Your task to perform on an android device: toggle notifications settings in the gmail app Image 0: 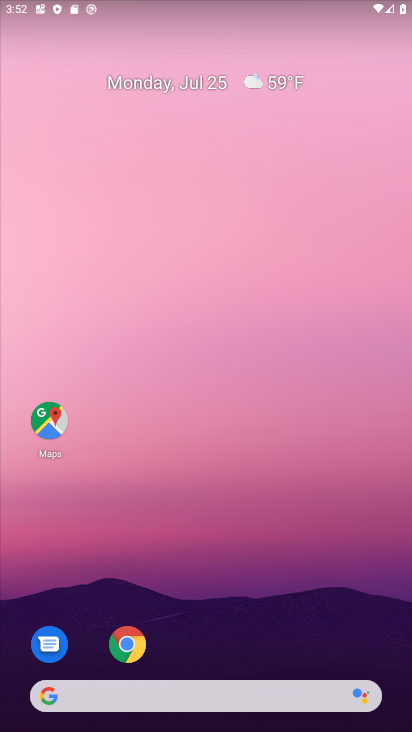
Step 0: drag from (200, 665) to (201, 184)
Your task to perform on an android device: toggle notifications settings in the gmail app Image 1: 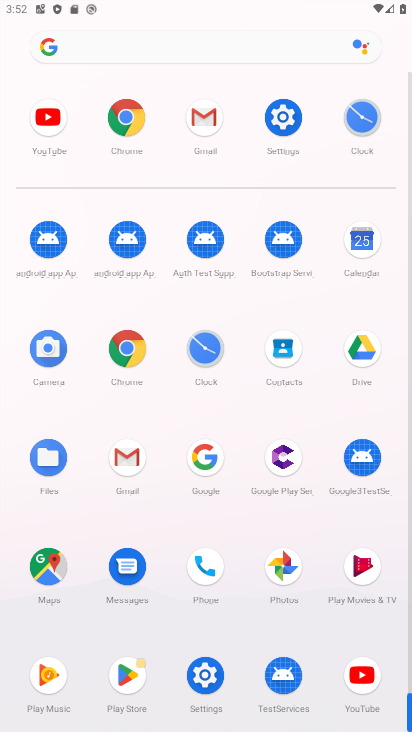
Step 1: click (209, 119)
Your task to perform on an android device: toggle notifications settings in the gmail app Image 2: 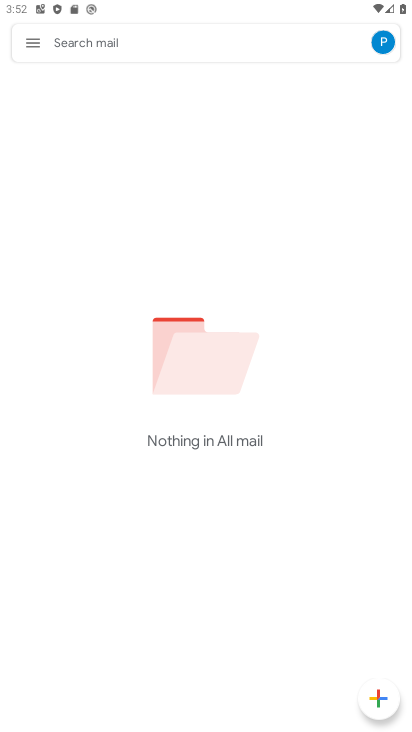
Step 2: click (31, 39)
Your task to perform on an android device: toggle notifications settings in the gmail app Image 3: 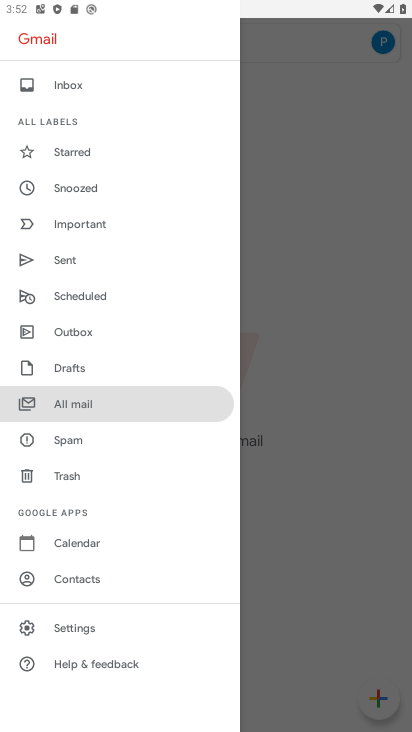
Step 3: click (90, 621)
Your task to perform on an android device: toggle notifications settings in the gmail app Image 4: 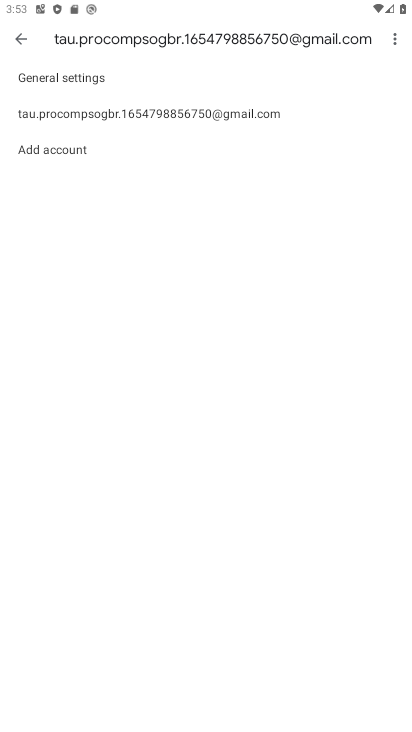
Step 4: click (138, 109)
Your task to perform on an android device: toggle notifications settings in the gmail app Image 5: 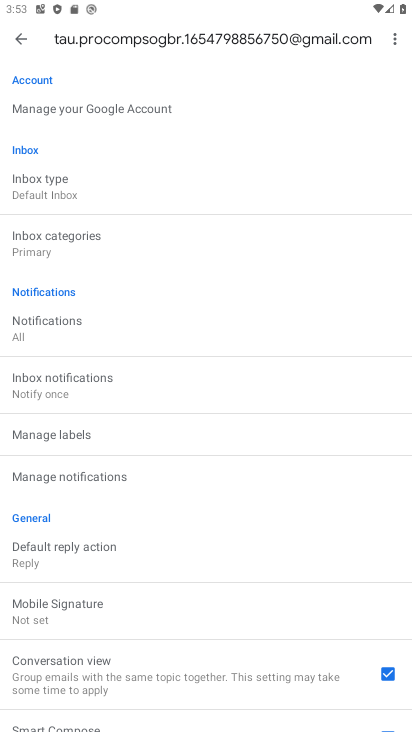
Step 5: click (58, 476)
Your task to perform on an android device: toggle notifications settings in the gmail app Image 6: 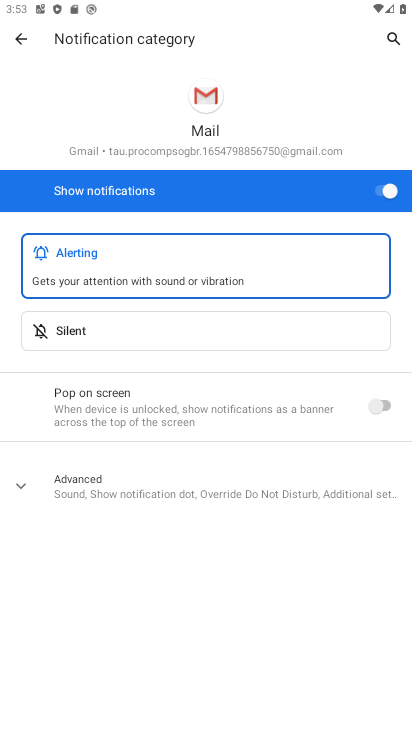
Step 6: click (379, 200)
Your task to perform on an android device: toggle notifications settings in the gmail app Image 7: 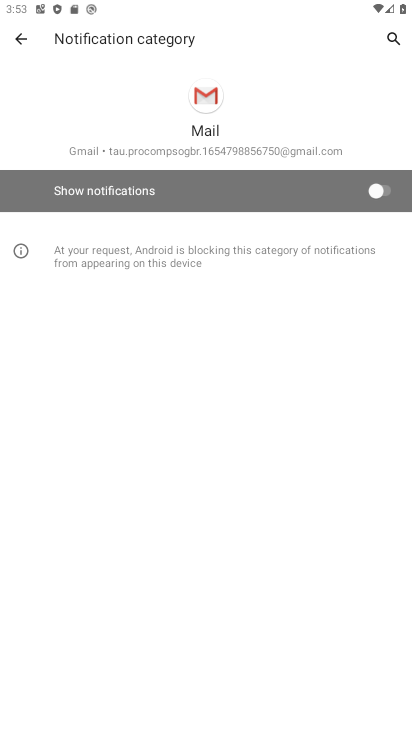
Step 7: task complete